Your task to perform on an android device: turn off airplane mode Image 0: 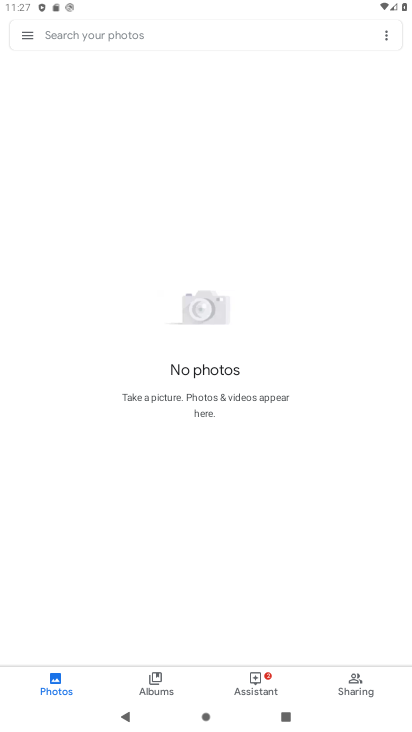
Step 0: press home button
Your task to perform on an android device: turn off airplane mode Image 1: 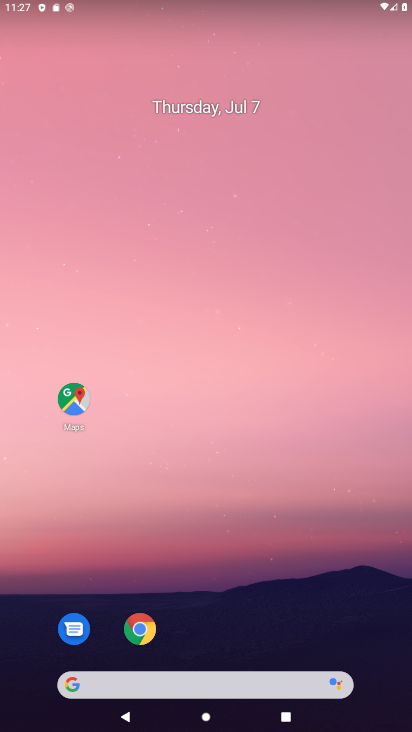
Step 1: drag from (359, 627) to (304, 141)
Your task to perform on an android device: turn off airplane mode Image 2: 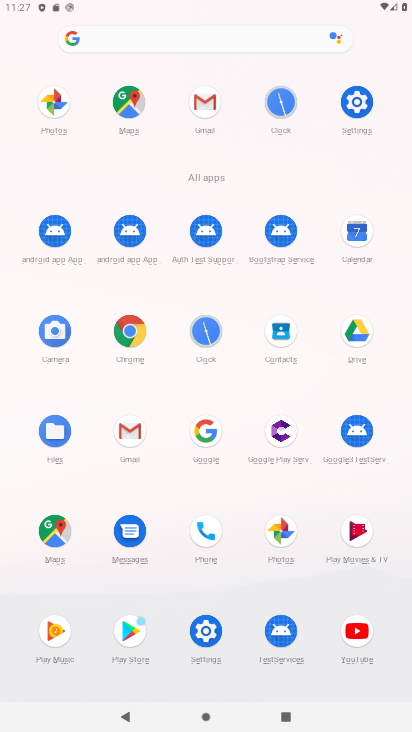
Step 2: click (205, 633)
Your task to perform on an android device: turn off airplane mode Image 3: 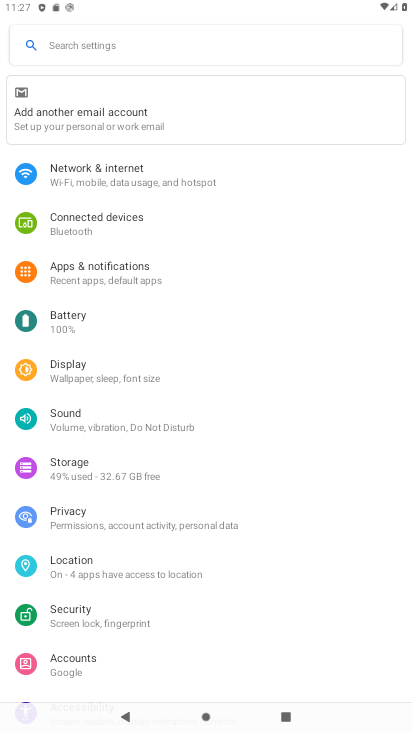
Step 3: click (98, 174)
Your task to perform on an android device: turn off airplane mode Image 4: 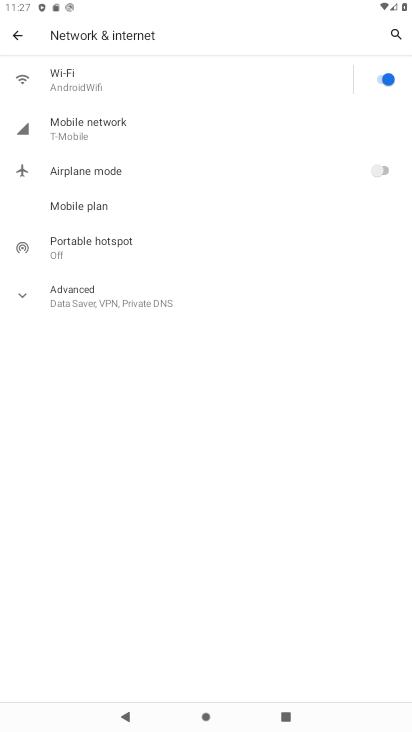
Step 4: task complete